Your task to perform on an android device: Is it going to rain tomorrow? Image 0: 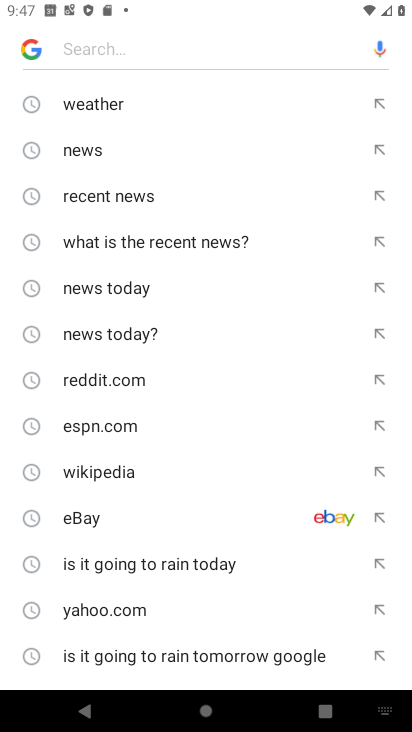
Step 0: press home button
Your task to perform on an android device: Is it going to rain tomorrow? Image 1: 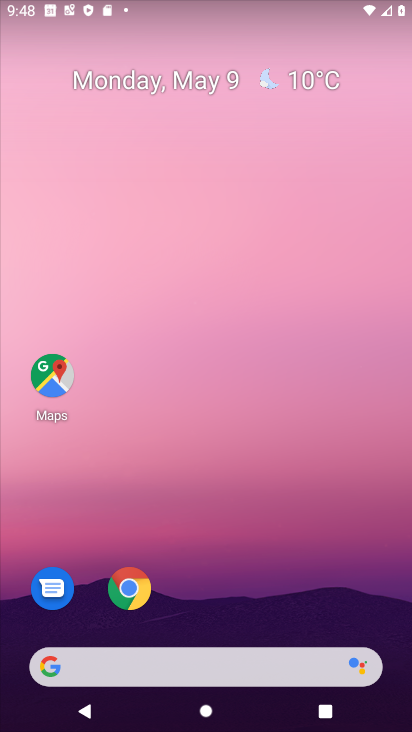
Step 1: click (298, 86)
Your task to perform on an android device: Is it going to rain tomorrow? Image 2: 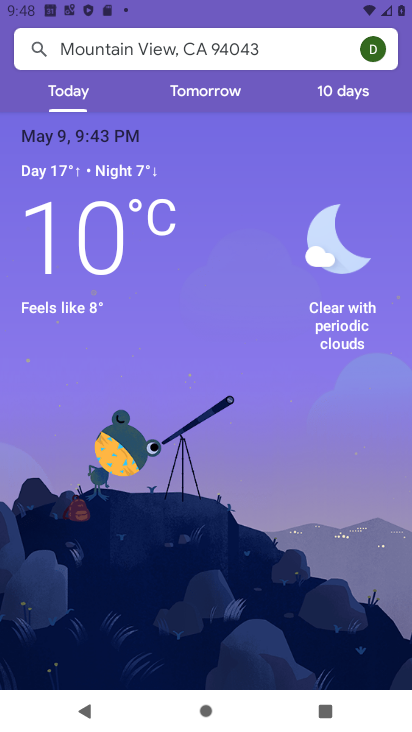
Step 2: click (189, 86)
Your task to perform on an android device: Is it going to rain tomorrow? Image 3: 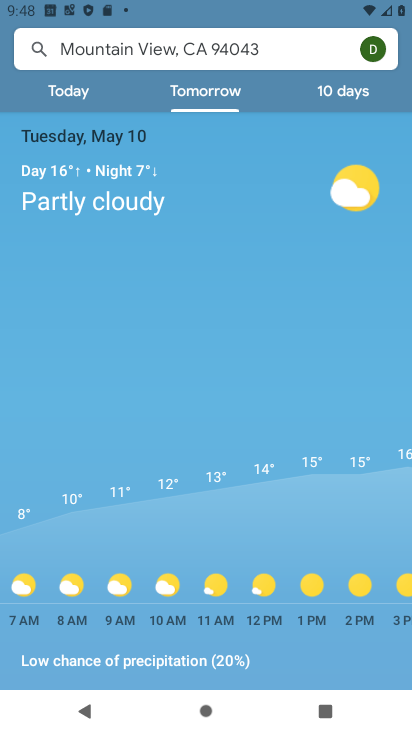
Step 3: task complete